Your task to perform on an android device: Clear the cart on costco.com. Search for "razer nari" on costco.com, select the first entry, and add it to the cart. Image 0: 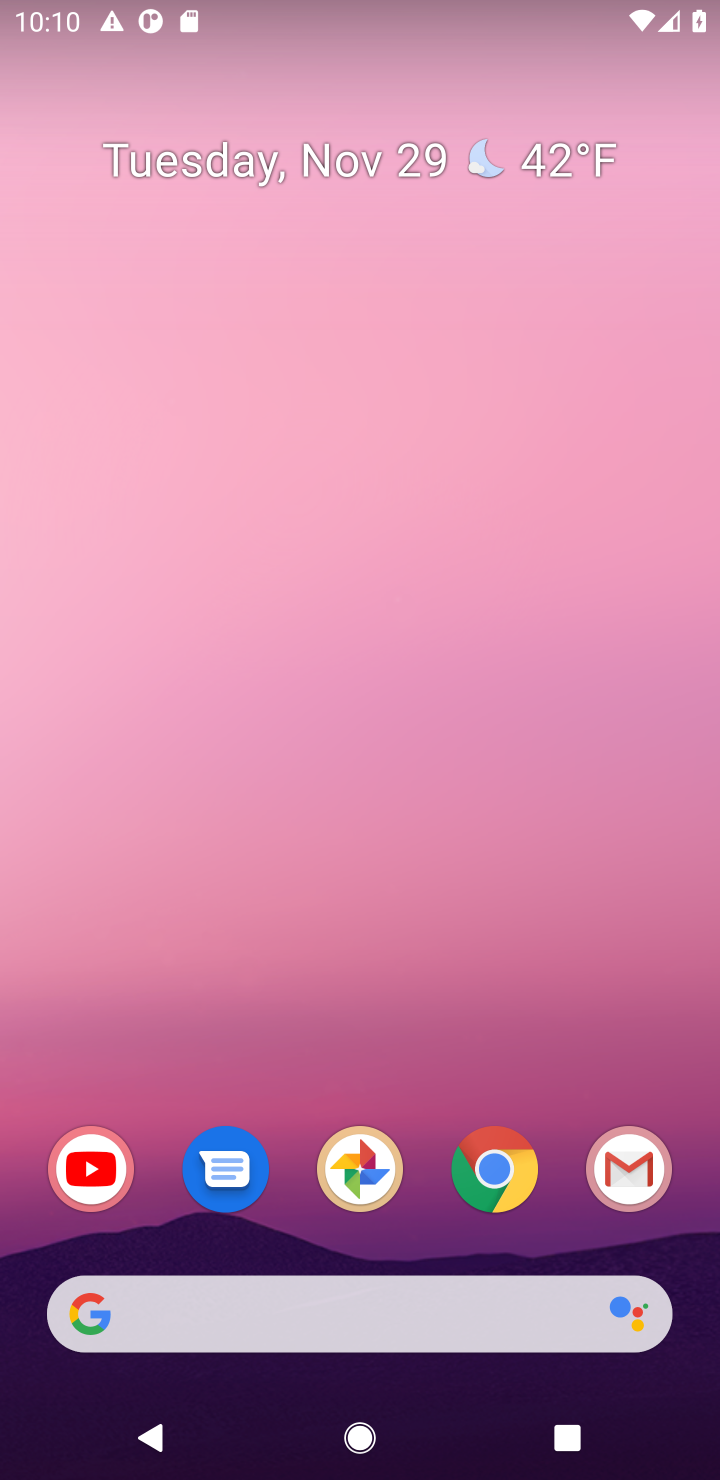
Step 0: click (400, 1305)
Your task to perform on an android device: Clear the cart on costco.com. Search for "razer nari" on costco.com, select the first entry, and add it to the cart. Image 1: 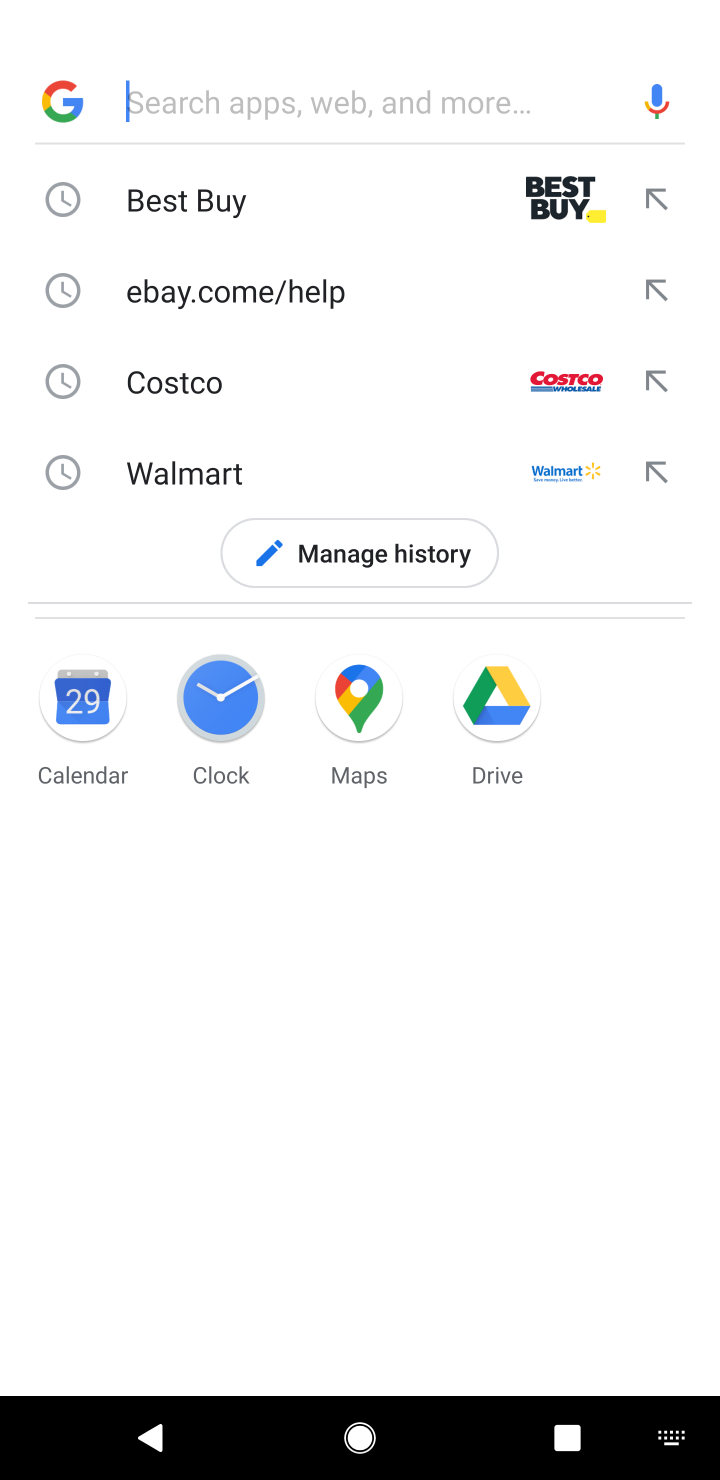
Step 1: type "costco.com"
Your task to perform on an android device: Clear the cart on costco.com. Search for "razer nari" on costco.com, select the first entry, and add it to the cart. Image 2: 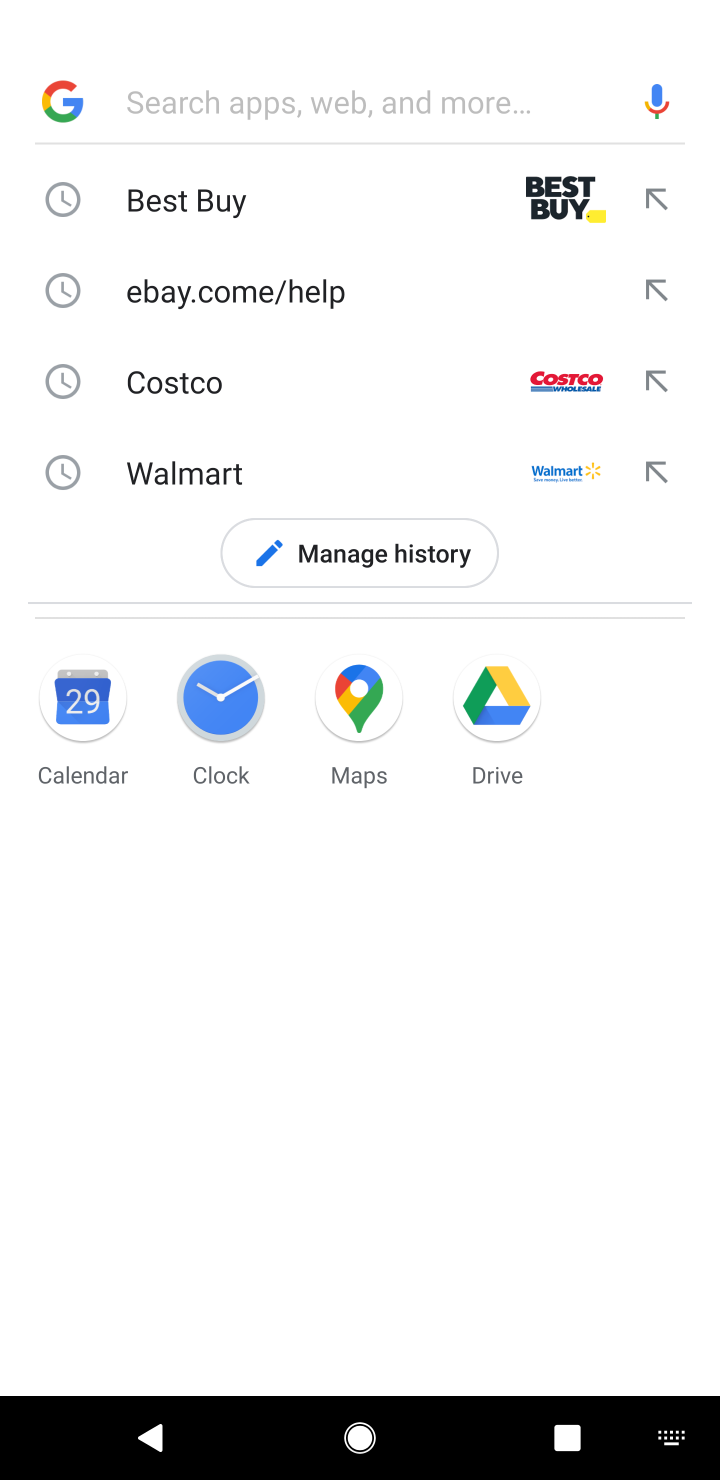
Step 2: click (286, 405)
Your task to perform on an android device: Clear the cart on costco.com. Search for "razer nari" on costco.com, select the first entry, and add it to the cart. Image 3: 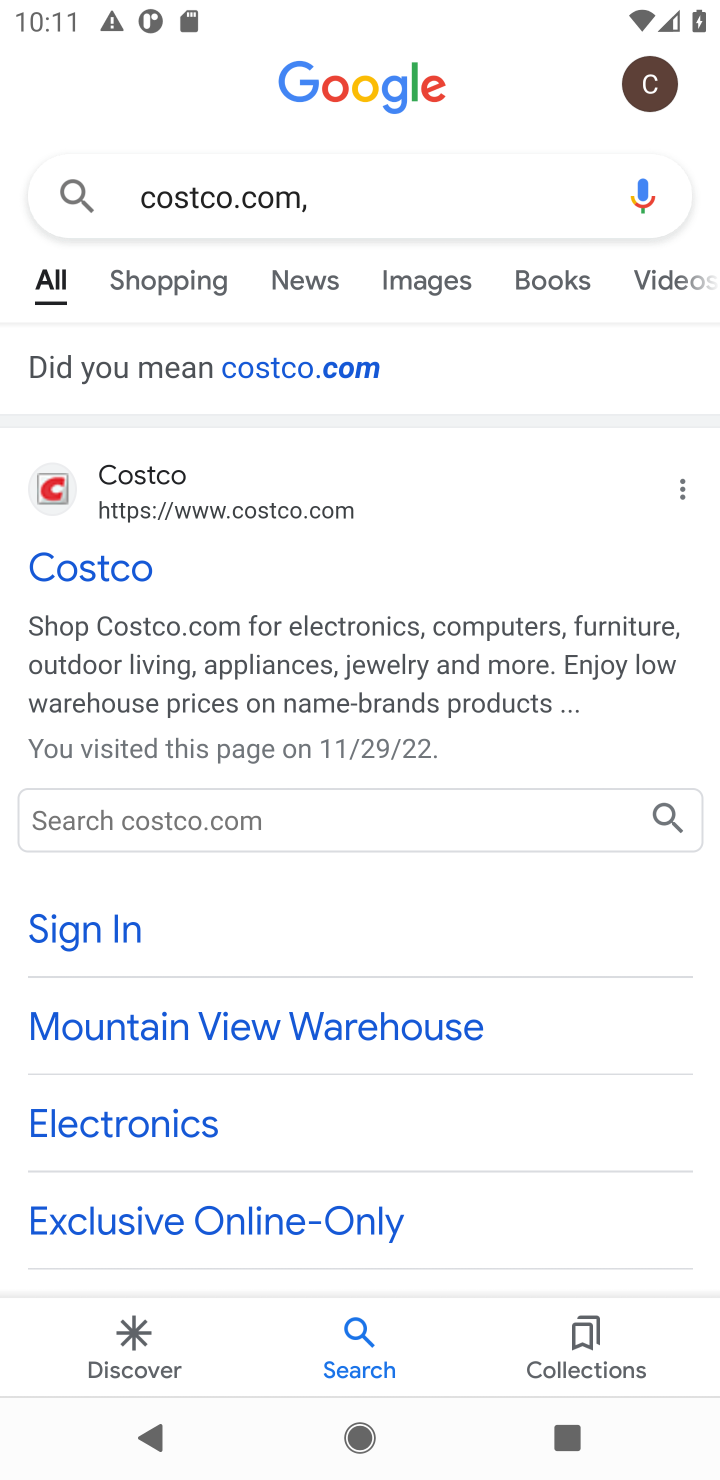
Step 3: click (75, 588)
Your task to perform on an android device: Clear the cart on costco.com. Search for "razer nari" on costco.com, select the first entry, and add it to the cart. Image 4: 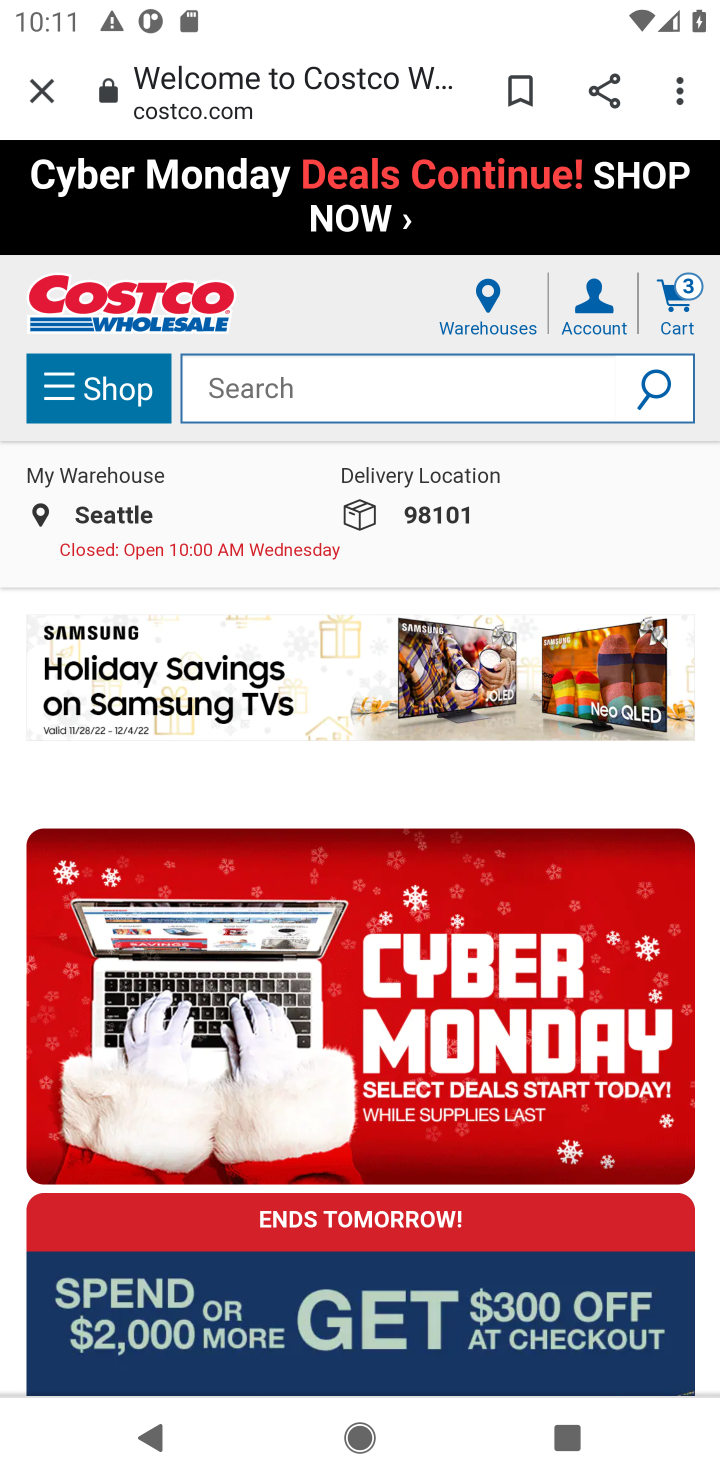
Step 4: click (300, 378)
Your task to perform on an android device: Clear the cart on costco.com. Search for "razer nari" on costco.com, select the first entry, and add it to the cart. Image 5: 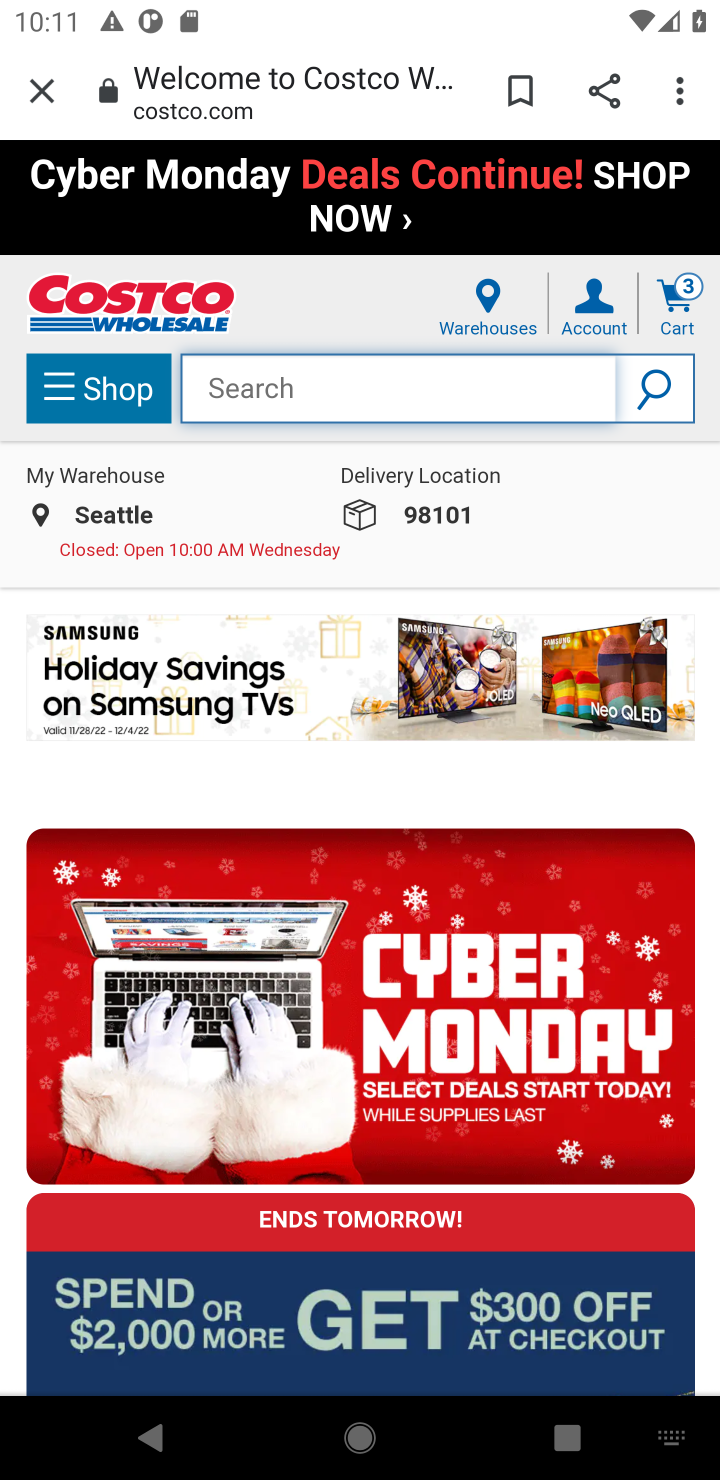
Step 5: type "razer nari"
Your task to perform on an android device: Clear the cart on costco.com. Search for "razer nari" on costco.com, select the first entry, and add it to the cart. Image 6: 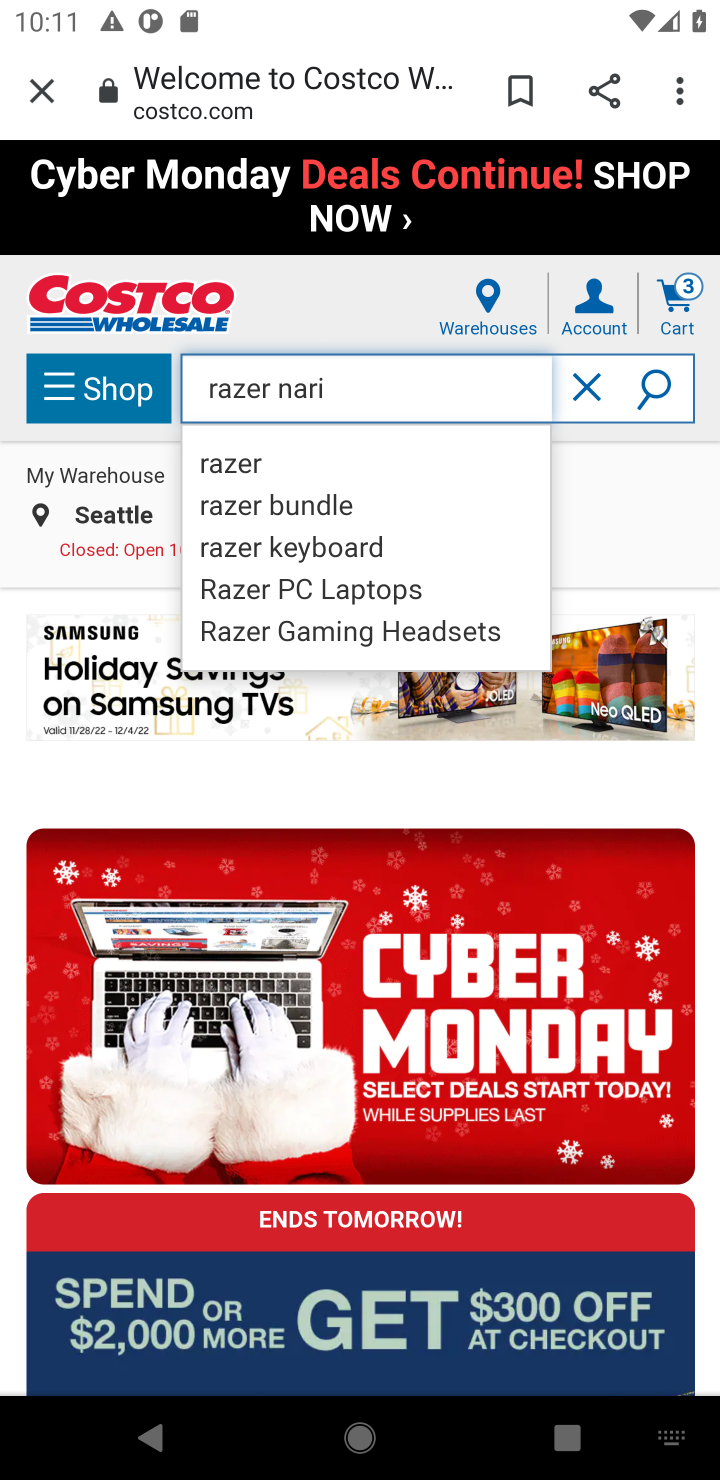
Step 6: click (638, 401)
Your task to perform on an android device: Clear the cart on costco.com. Search for "razer nari" on costco.com, select the first entry, and add it to the cart. Image 7: 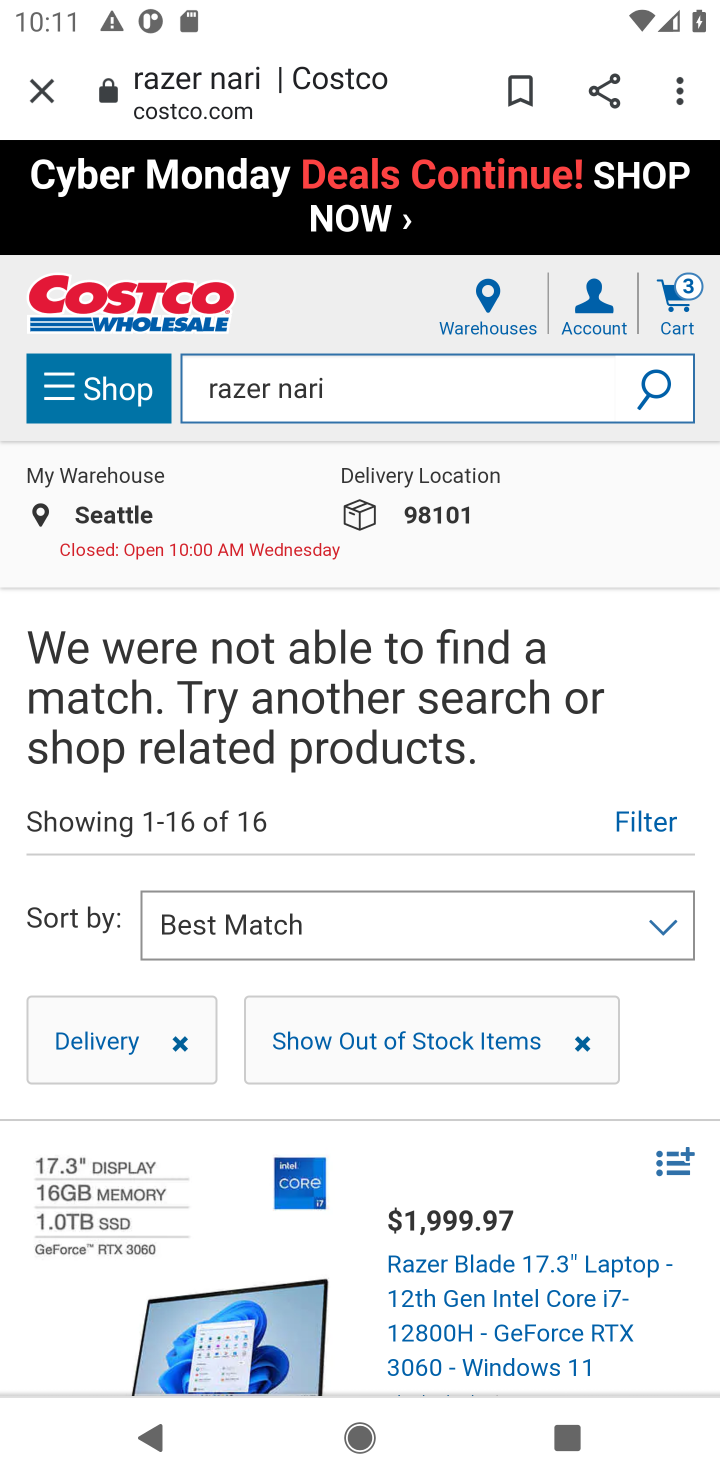
Step 7: click (464, 1279)
Your task to perform on an android device: Clear the cart on costco.com. Search for "razer nari" on costco.com, select the first entry, and add it to the cart. Image 8: 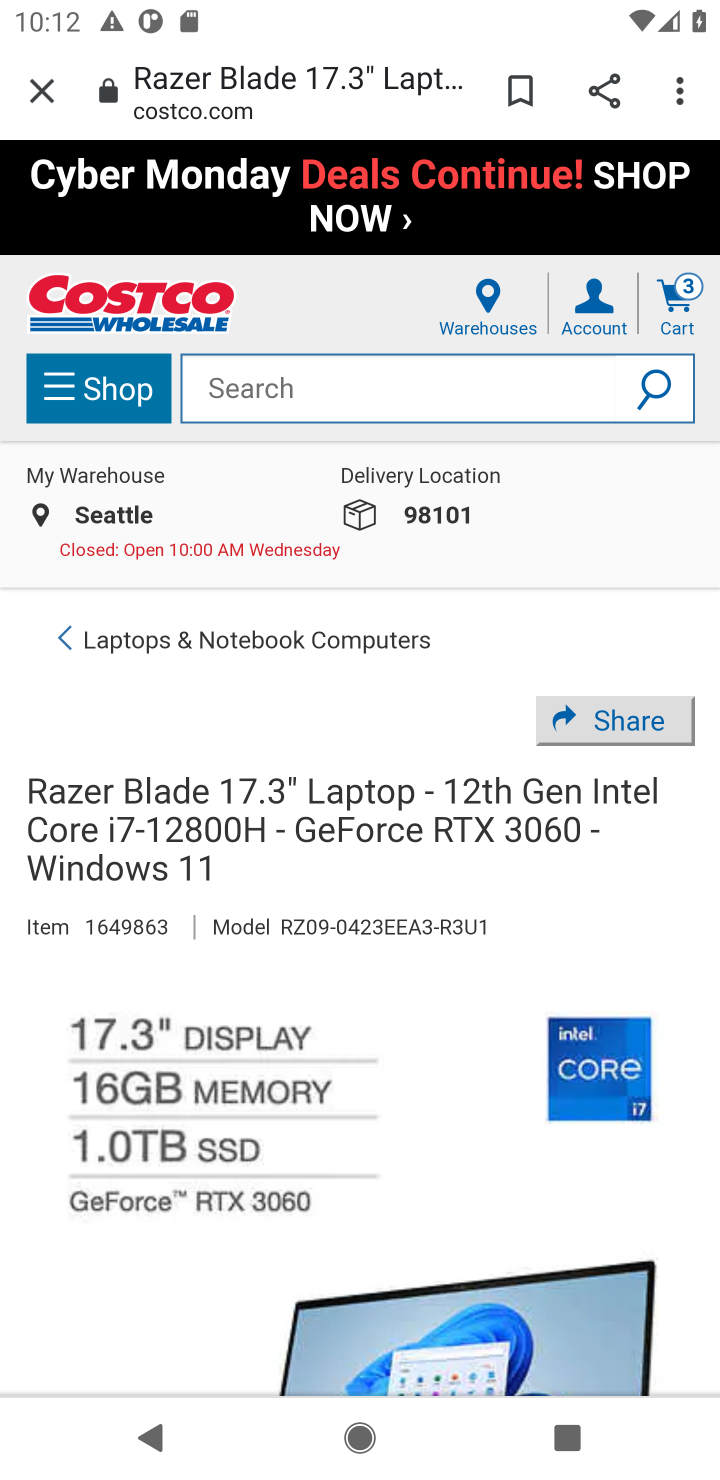
Step 8: click (345, 1293)
Your task to perform on an android device: Clear the cart on costco.com. Search for "razer nari" on costco.com, select the first entry, and add it to the cart. Image 9: 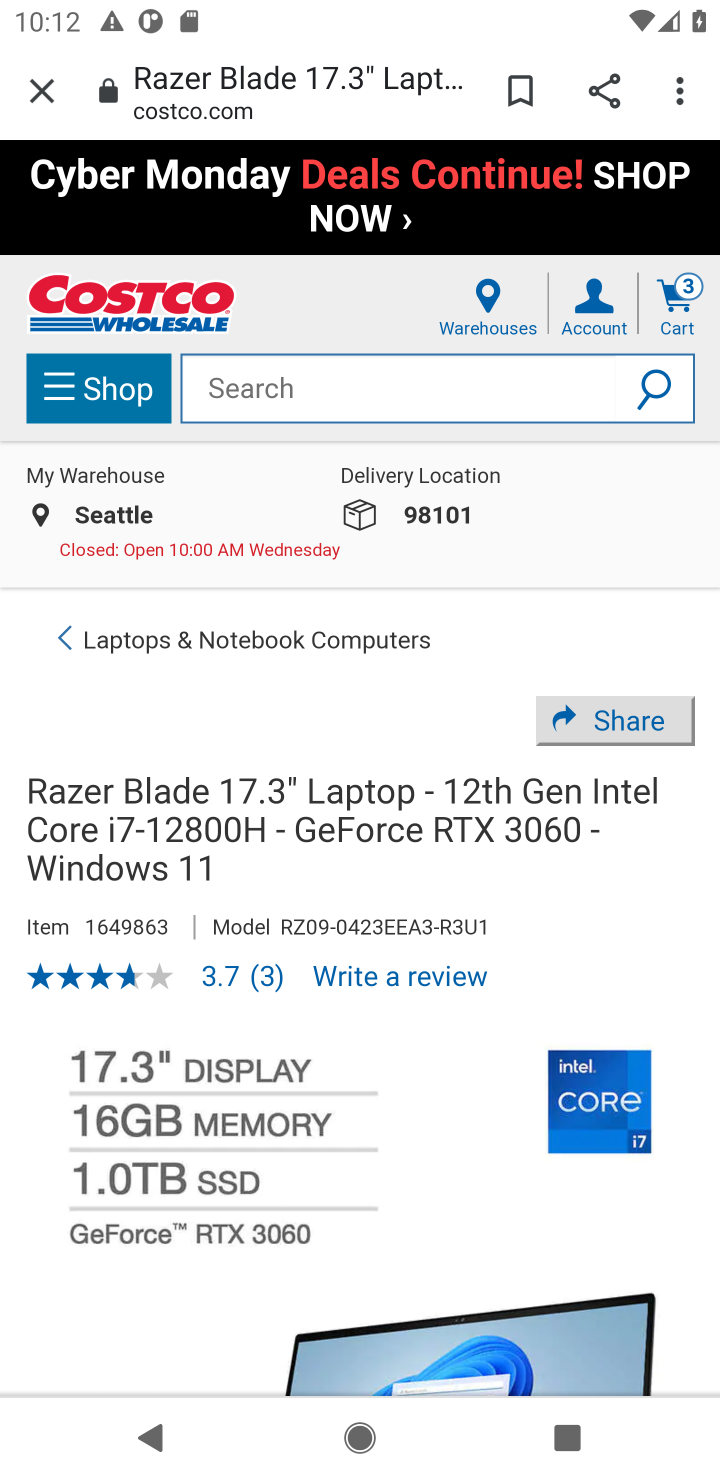
Step 9: drag from (345, 1293) to (325, 732)
Your task to perform on an android device: Clear the cart on costco.com. Search for "razer nari" on costco.com, select the first entry, and add it to the cart. Image 10: 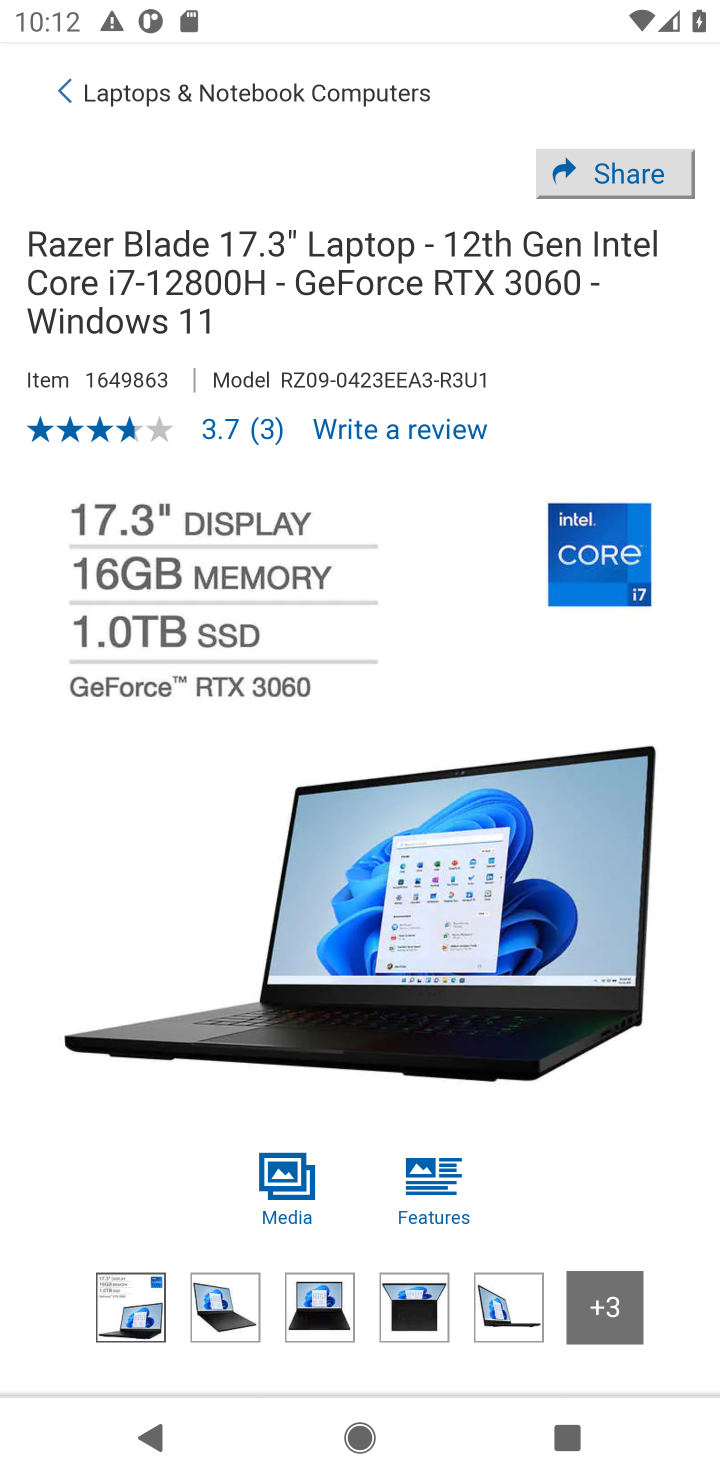
Step 10: drag from (578, 1236) to (473, 324)
Your task to perform on an android device: Clear the cart on costco.com. Search for "razer nari" on costco.com, select the first entry, and add it to the cart. Image 11: 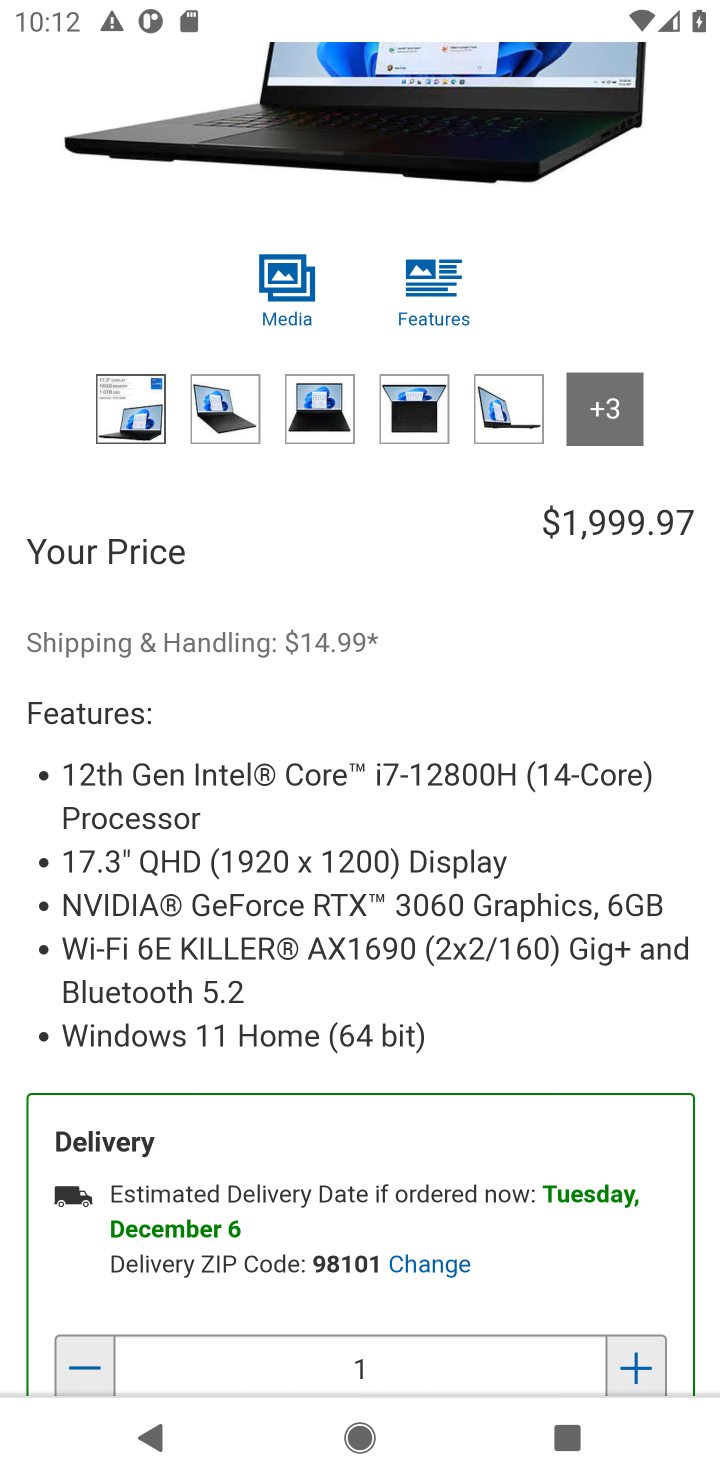
Step 11: click (638, 1366)
Your task to perform on an android device: Clear the cart on costco.com. Search for "razer nari" on costco.com, select the first entry, and add it to the cart. Image 12: 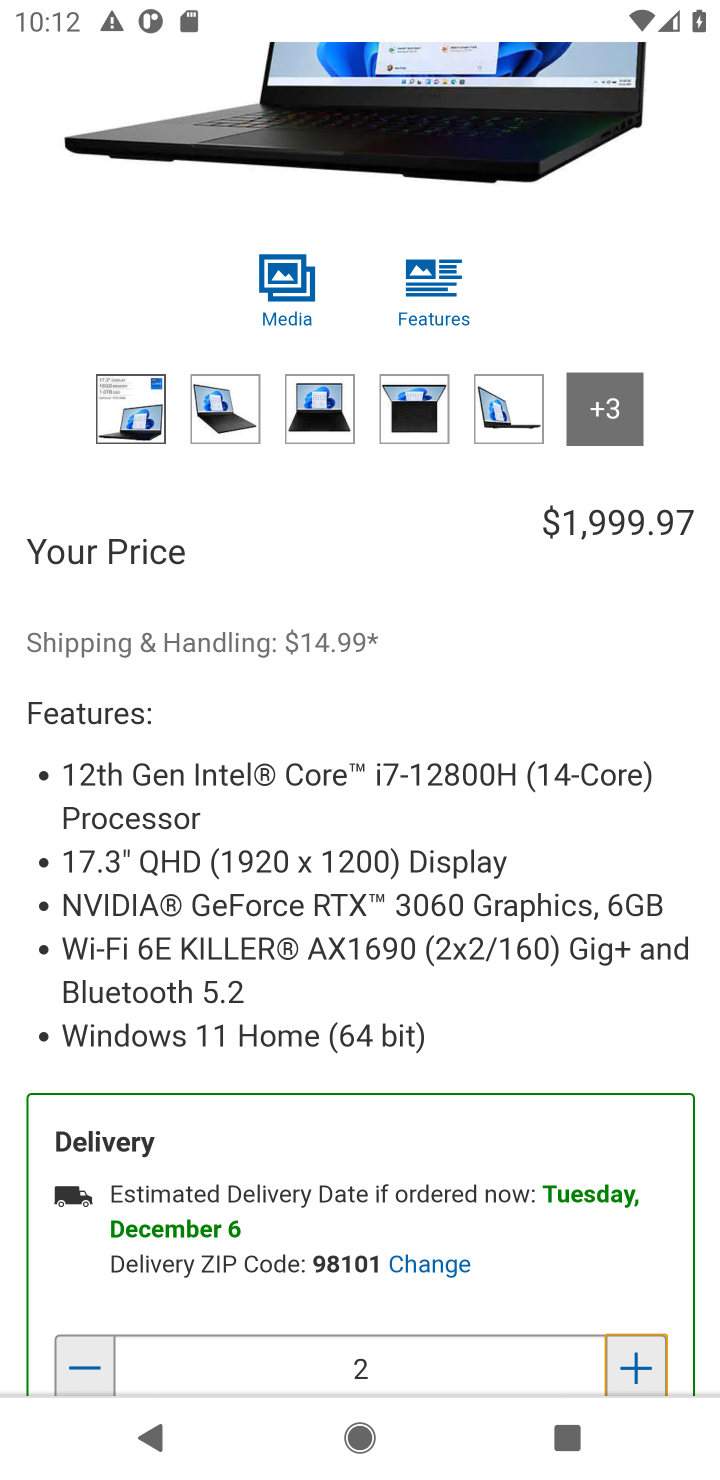
Step 12: task complete